Your task to perform on an android device: open a bookmark in the chrome app Image 0: 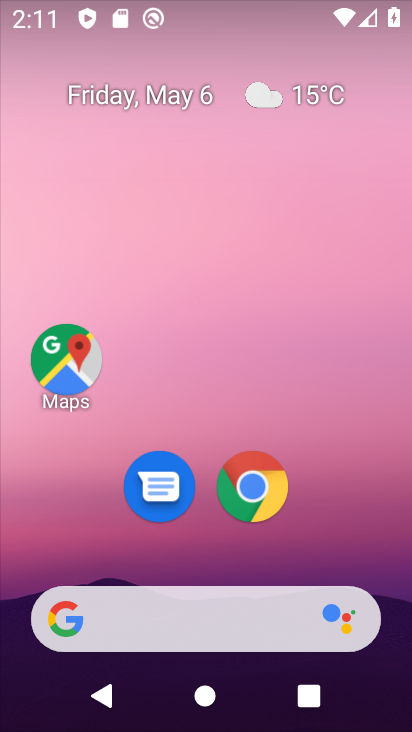
Step 0: click (259, 488)
Your task to perform on an android device: open a bookmark in the chrome app Image 1: 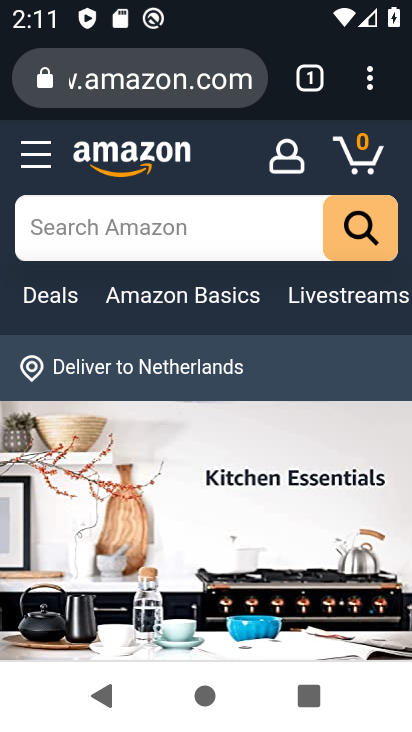
Step 1: click (371, 82)
Your task to perform on an android device: open a bookmark in the chrome app Image 2: 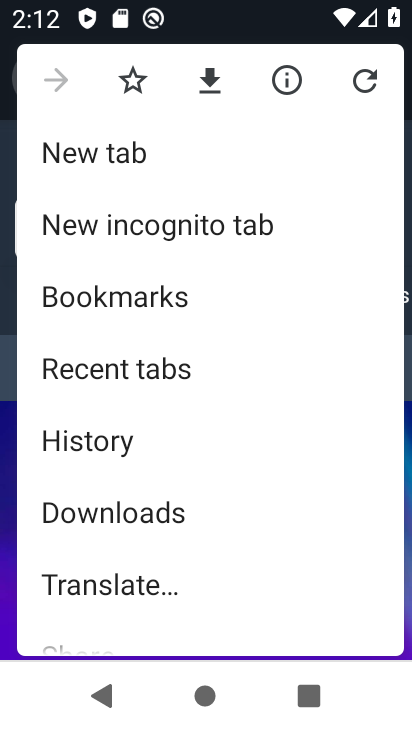
Step 2: click (148, 292)
Your task to perform on an android device: open a bookmark in the chrome app Image 3: 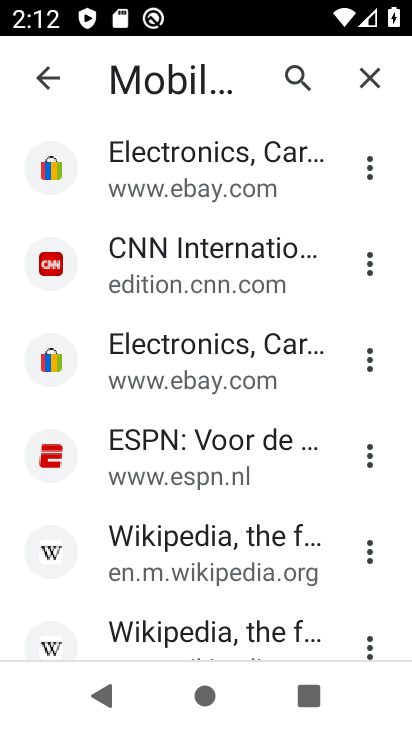
Step 3: task complete